Your task to perform on an android device: install app "eBay: The shopping marketplace" Image 0: 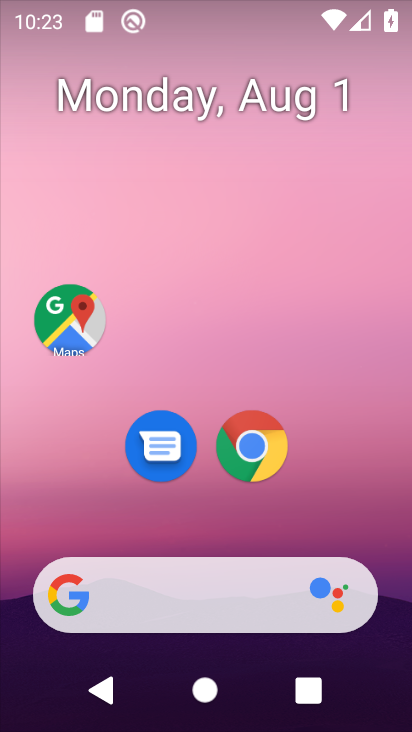
Step 0: drag from (209, 517) to (224, 155)
Your task to perform on an android device: install app "eBay: The shopping marketplace" Image 1: 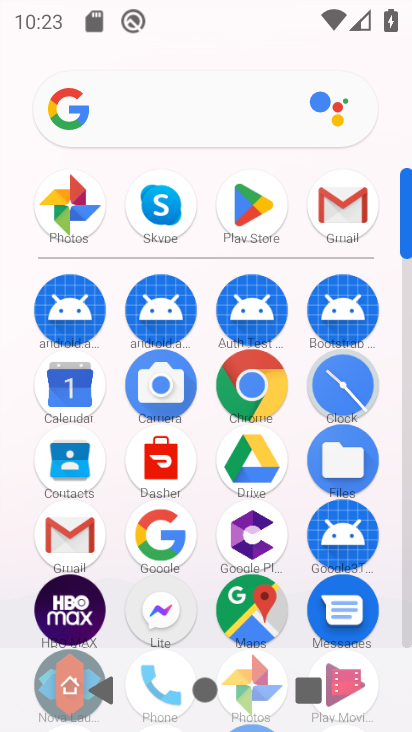
Step 1: click (237, 187)
Your task to perform on an android device: install app "eBay: The shopping marketplace" Image 2: 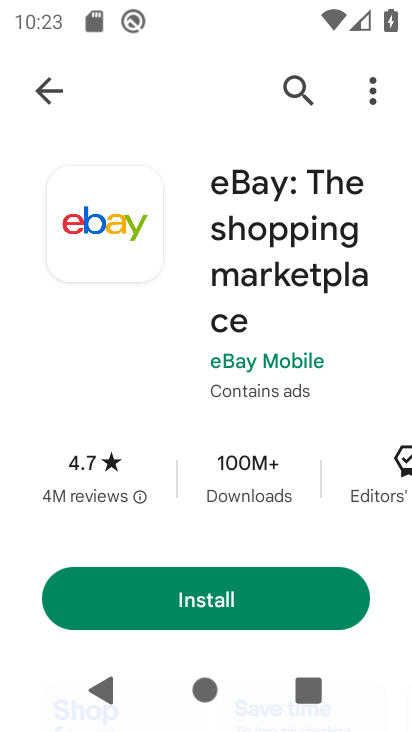
Step 2: task complete